Your task to perform on an android device: turn off notifications in google photos Image 0: 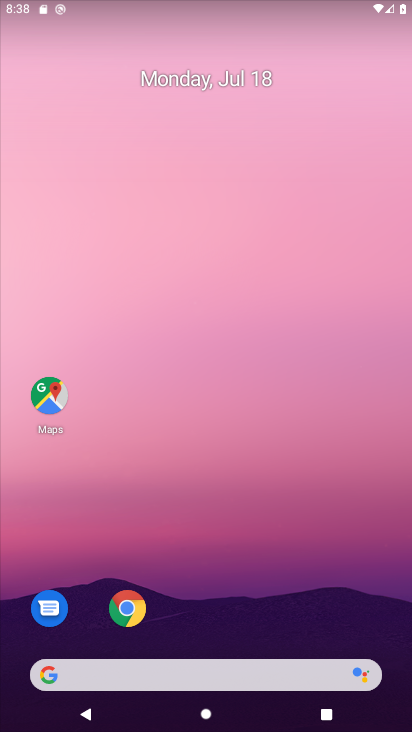
Step 0: drag from (190, 671) to (264, 180)
Your task to perform on an android device: turn off notifications in google photos Image 1: 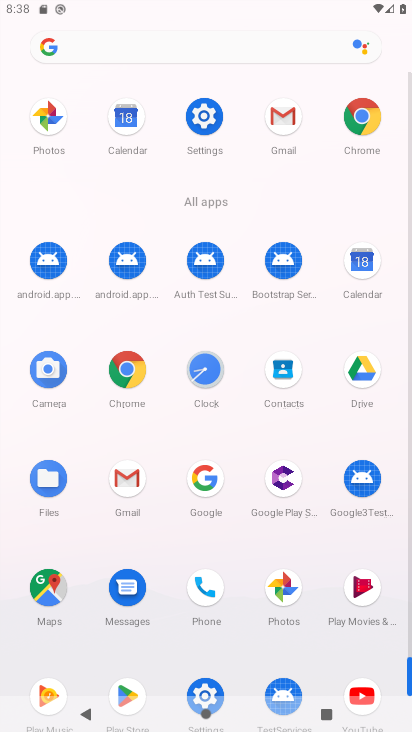
Step 1: click (49, 116)
Your task to perform on an android device: turn off notifications in google photos Image 2: 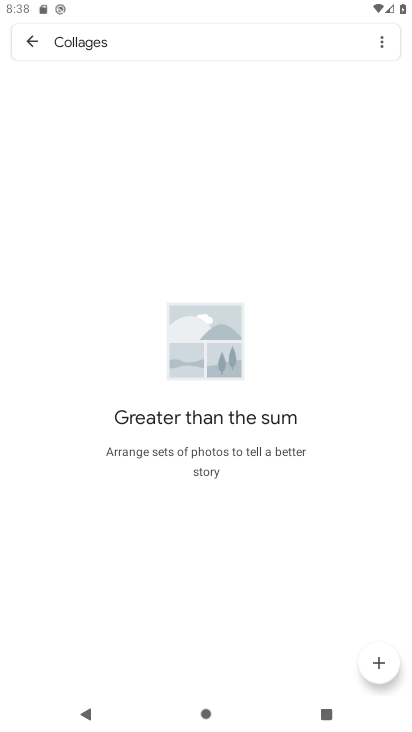
Step 2: press back button
Your task to perform on an android device: turn off notifications in google photos Image 3: 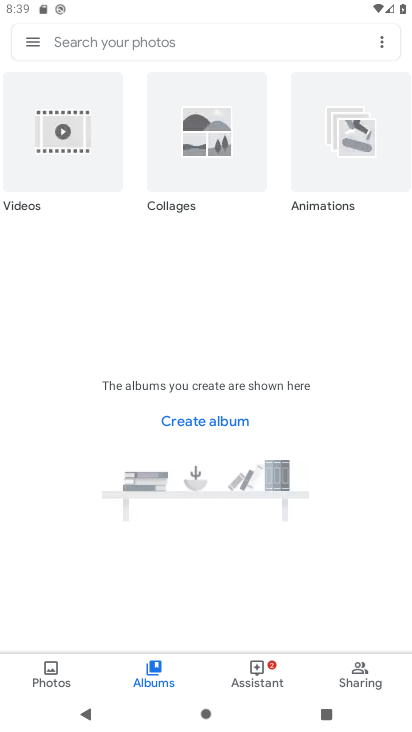
Step 3: click (33, 44)
Your task to perform on an android device: turn off notifications in google photos Image 4: 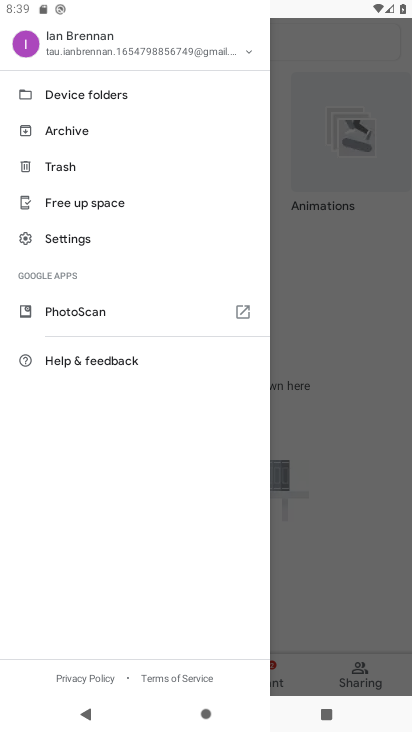
Step 4: click (65, 234)
Your task to perform on an android device: turn off notifications in google photos Image 5: 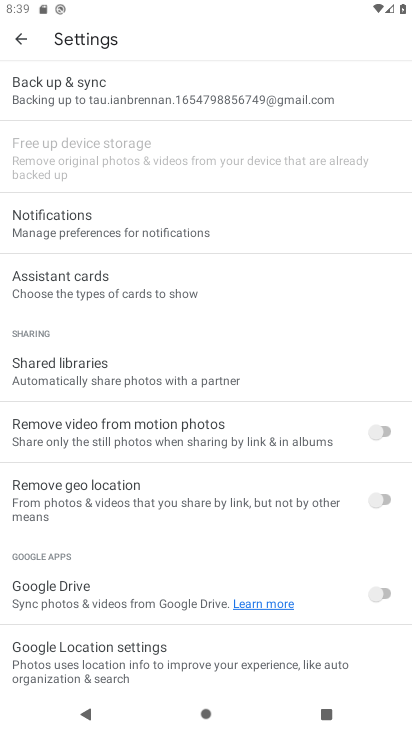
Step 5: click (77, 222)
Your task to perform on an android device: turn off notifications in google photos Image 6: 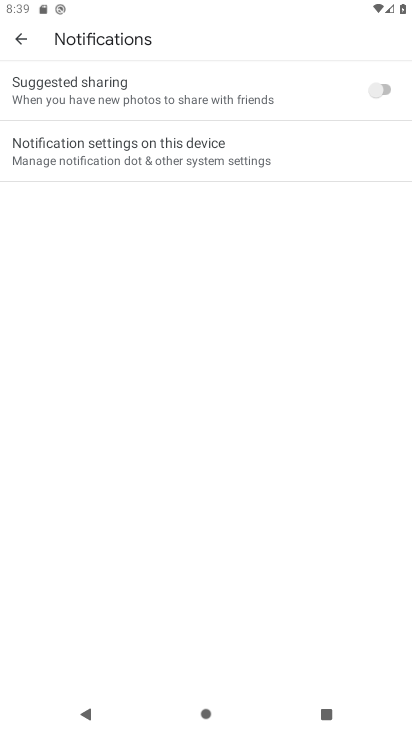
Step 6: click (77, 222)
Your task to perform on an android device: turn off notifications in google photos Image 7: 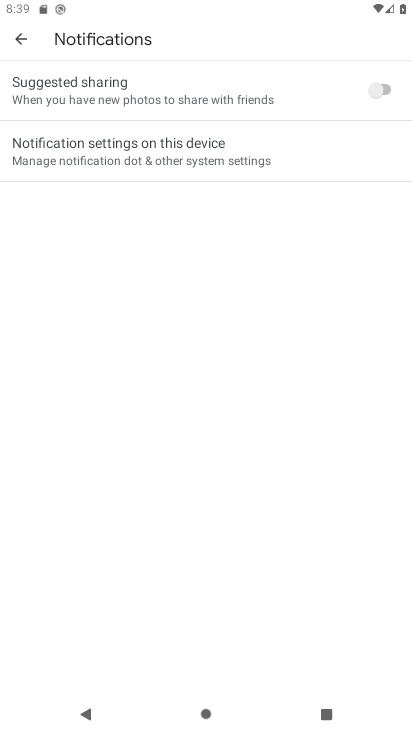
Step 7: click (107, 156)
Your task to perform on an android device: turn off notifications in google photos Image 8: 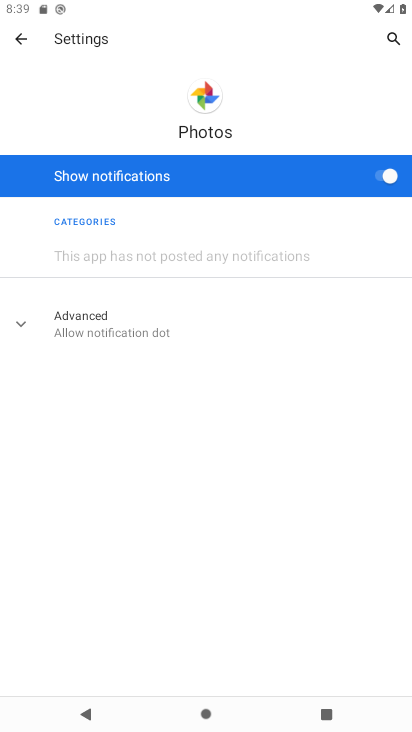
Step 8: click (384, 175)
Your task to perform on an android device: turn off notifications in google photos Image 9: 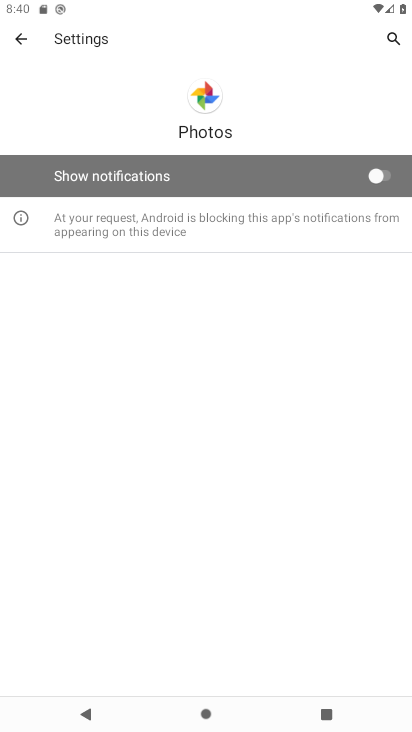
Step 9: task complete